Your task to perform on an android device: Go to Wikipedia Image 0: 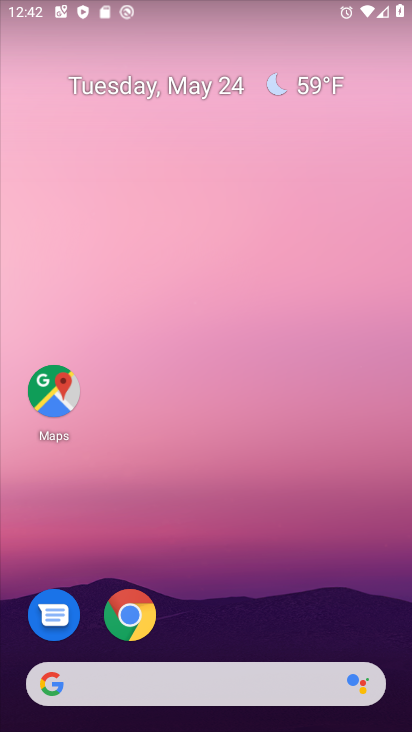
Step 0: drag from (254, 599) to (237, 40)
Your task to perform on an android device: Go to Wikipedia Image 1: 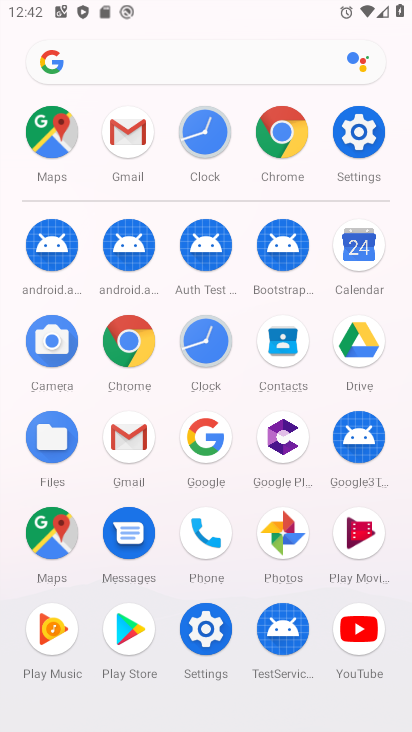
Step 1: drag from (10, 549) to (10, 182)
Your task to perform on an android device: Go to Wikipedia Image 2: 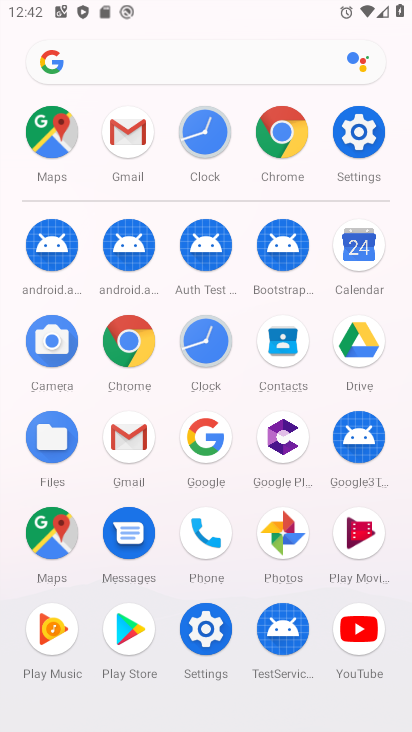
Step 2: click (132, 338)
Your task to perform on an android device: Go to Wikipedia Image 3: 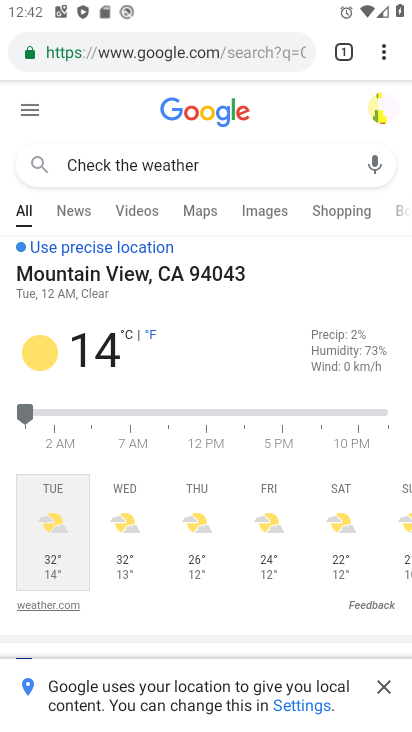
Step 3: click (223, 45)
Your task to perform on an android device: Go to Wikipedia Image 4: 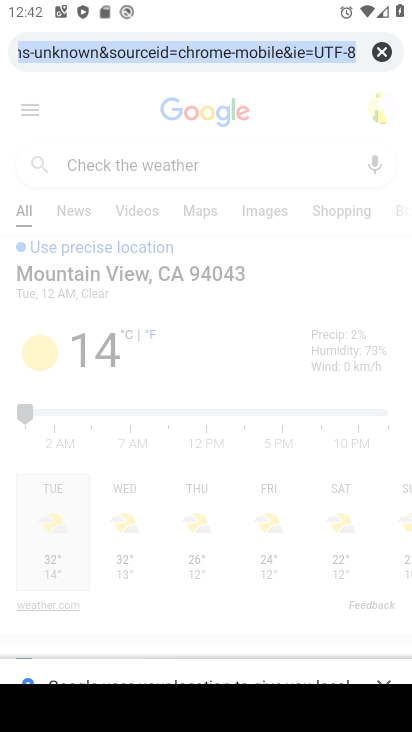
Step 4: click (384, 53)
Your task to perform on an android device: Go to Wikipedia Image 5: 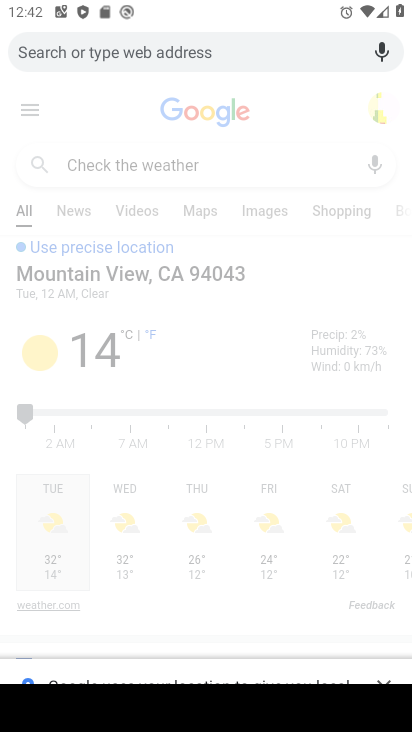
Step 5: type "Wikipedia"
Your task to perform on an android device: Go to Wikipedia Image 6: 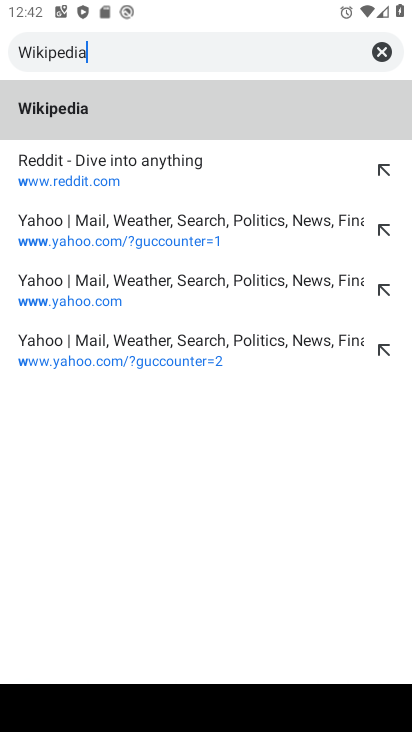
Step 6: type ""
Your task to perform on an android device: Go to Wikipedia Image 7: 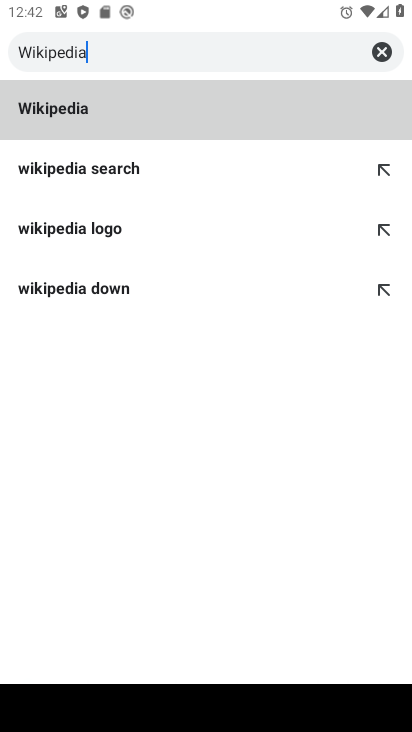
Step 7: click (100, 123)
Your task to perform on an android device: Go to Wikipedia Image 8: 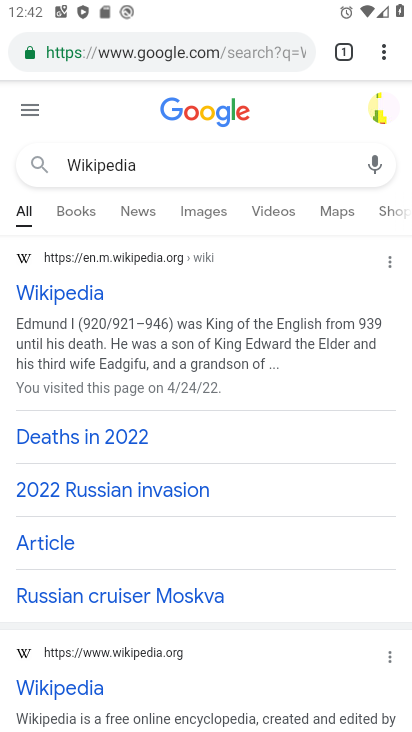
Step 8: click (74, 301)
Your task to perform on an android device: Go to Wikipedia Image 9: 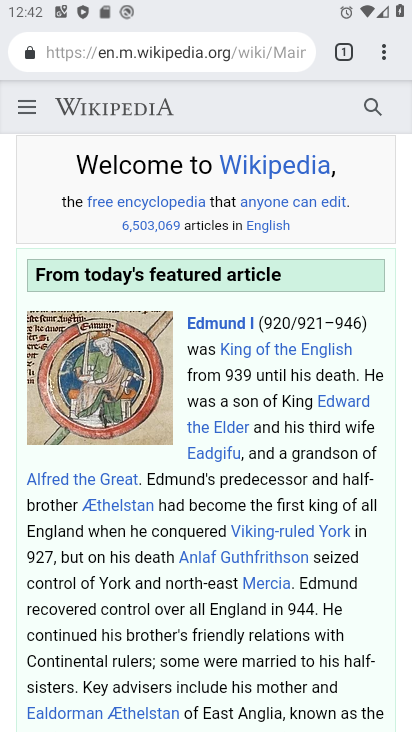
Step 9: task complete